Your task to perform on an android device: change alarm snooze length Image 0: 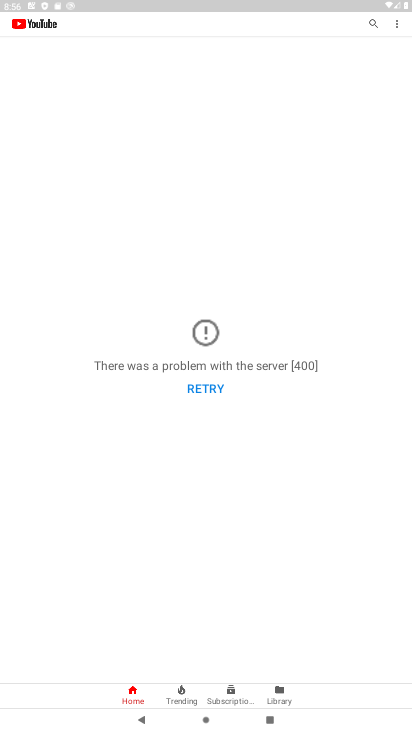
Step 0: press home button
Your task to perform on an android device: change alarm snooze length Image 1: 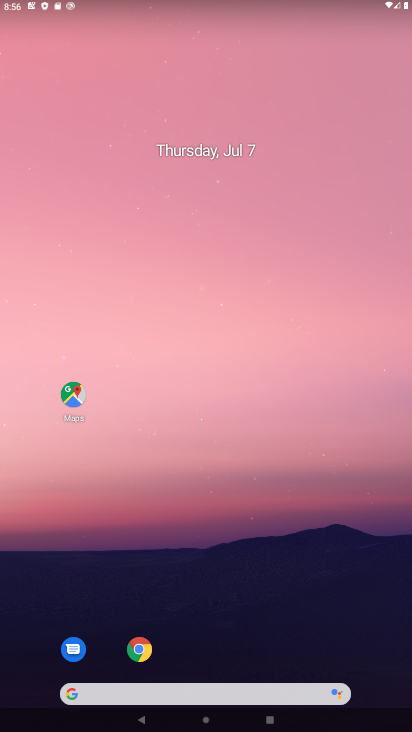
Step 1: drag from (225, 726) to (230, 0)
Your task to perform on an android device: change alarm snooze length Image 2: 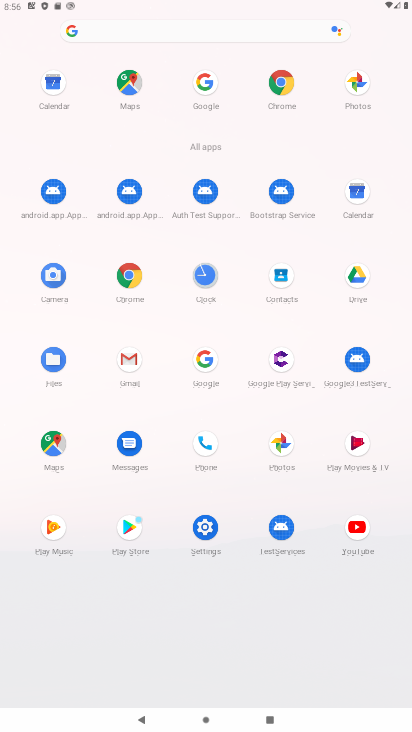
Step 2: click (195, 280)
Your task to perform on an android device: change alarm snooze length Image 3: 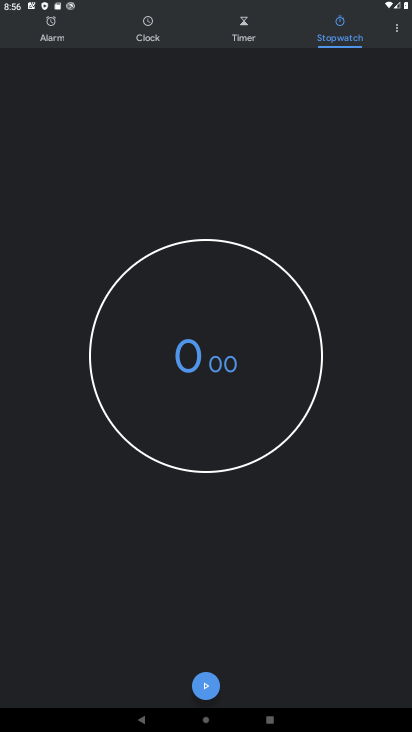
Step 3: click (401, 27)
Your task to perform on an android device: change alarm snooze length Image 4: 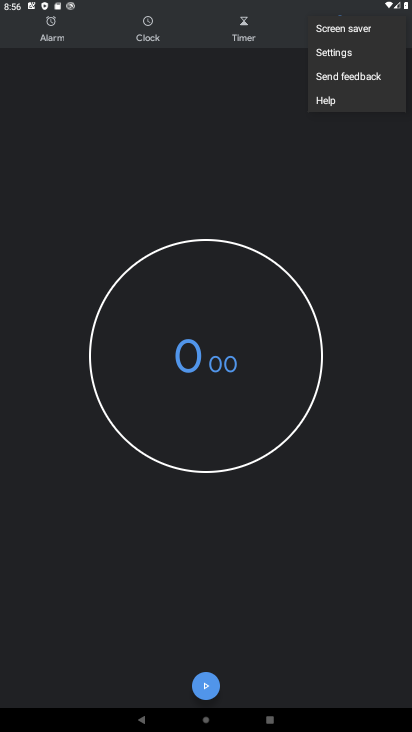
Step 4: click (350, 49)
Your task to perform on an android device: change alarm snooze length Image 5: 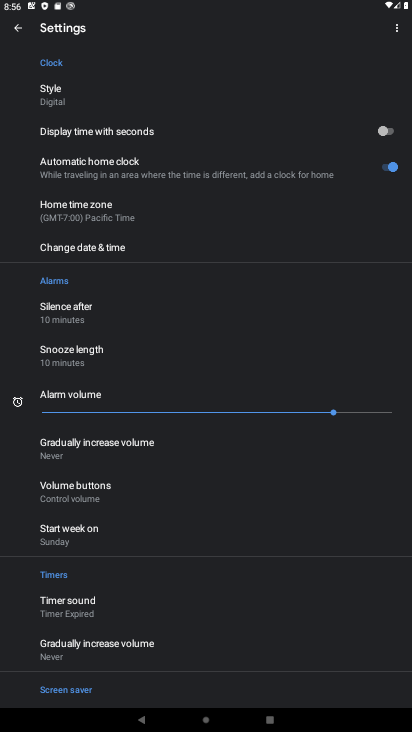
Step 5: click (75, 350)
Your task to perform on an android device: change alarm snooze length Image 6: 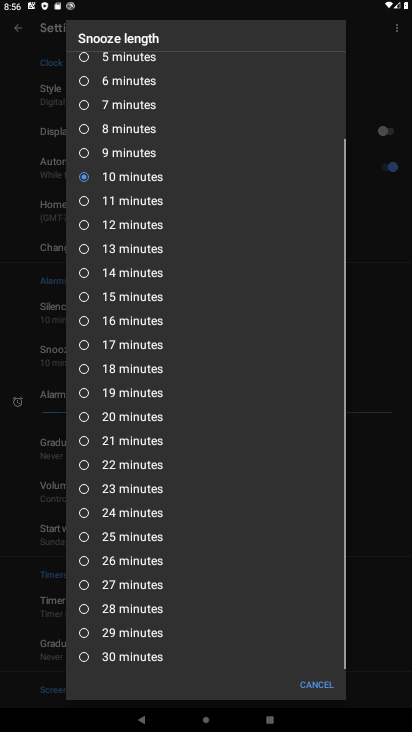
Step 6: click (84, 446)
Your task to perform on an android device: change alarm snooze length Image 7: 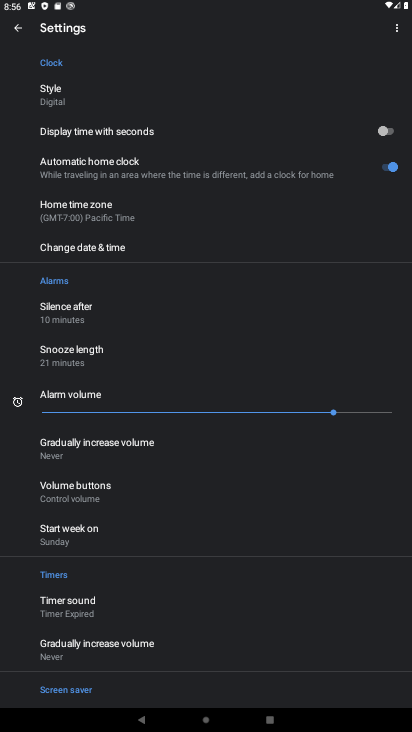
Step 7: task complete